Your task to perform on an android device: Show me the alarms in the clock app Image 0: 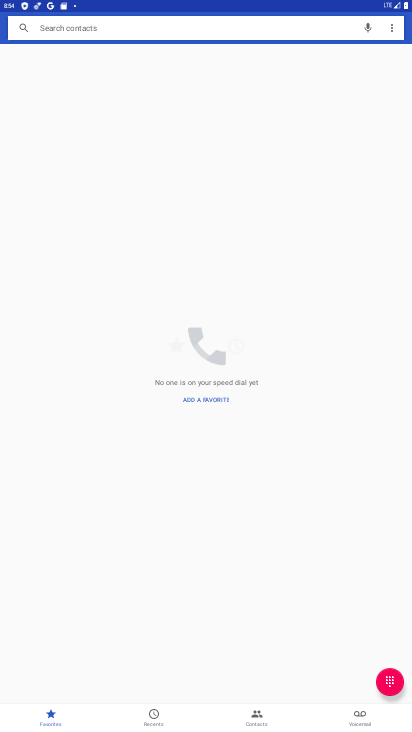
Step 0: press home button
Your task to perform on an android device: Show me the alarms in the clock app Image 1: 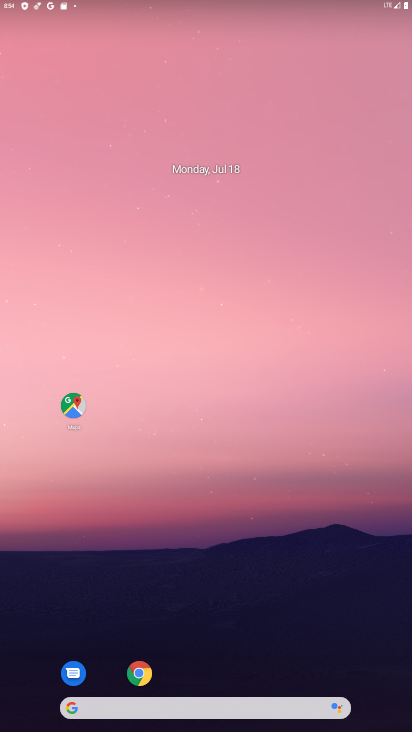
Step 1: drag from (188, 641) to (206, 141)
Your task to perform on an android device: Show me the alarms in the clock app Image 2: 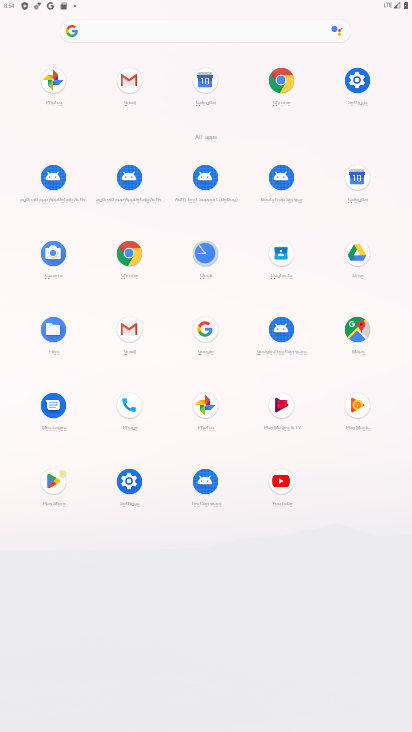
Step 2: click (208, 253)
Your task to perform on an android device: Show me the alarms in the clock app Image 3: 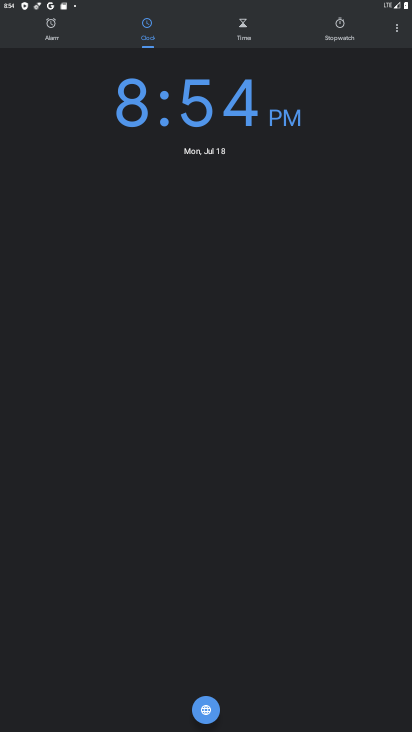
Step 3: click (54, 29)
Your task to perform on an android device: Show me the alarms in the clock app Image 4: 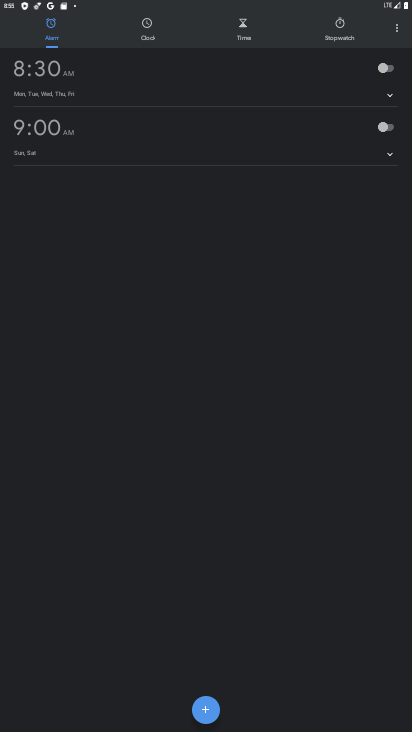
Step 4: task complete